Your task to perform on an android device: move an email to a new category in the gmail app Image 0: 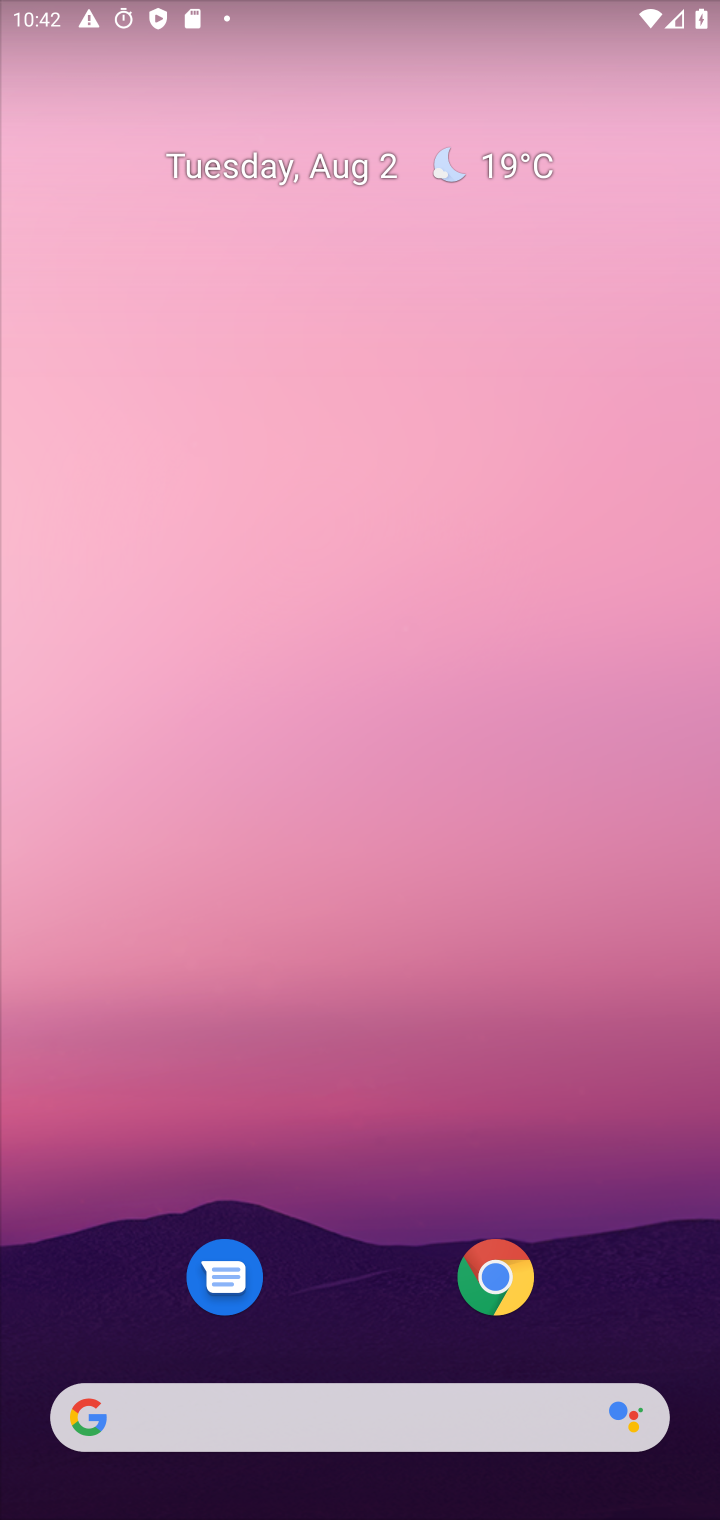
Step 0: press home button
Your task to perform on an android device: move an email to a new category in the gmail app Image 1: 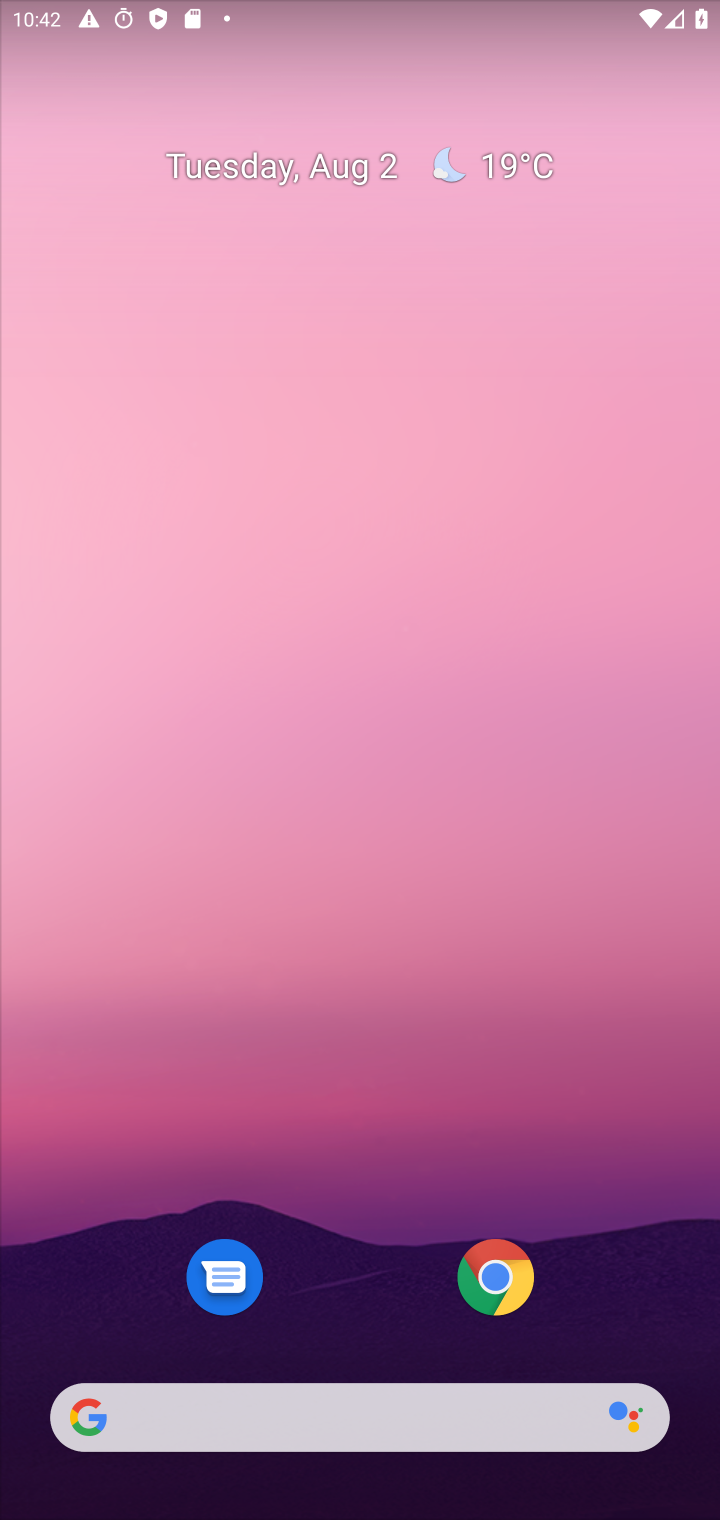
Step 1: drag from (361, 1315) to (252, 127)
Your task to perform on an android device: move an email to a new category in the gmail app Image 2: 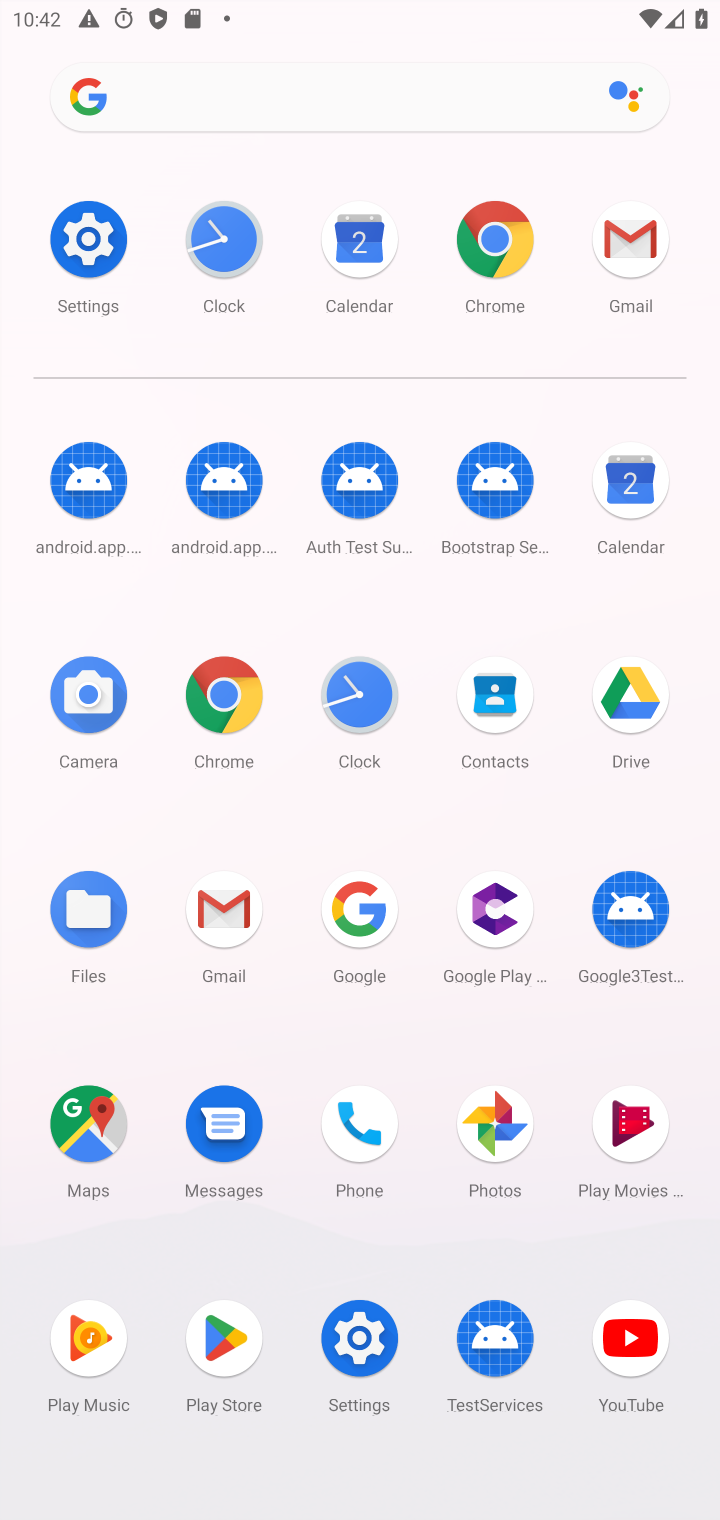
Step 2: click (649, 247)
Your task to perform on an android device: move an email to a new category in the gmail app Image 3: 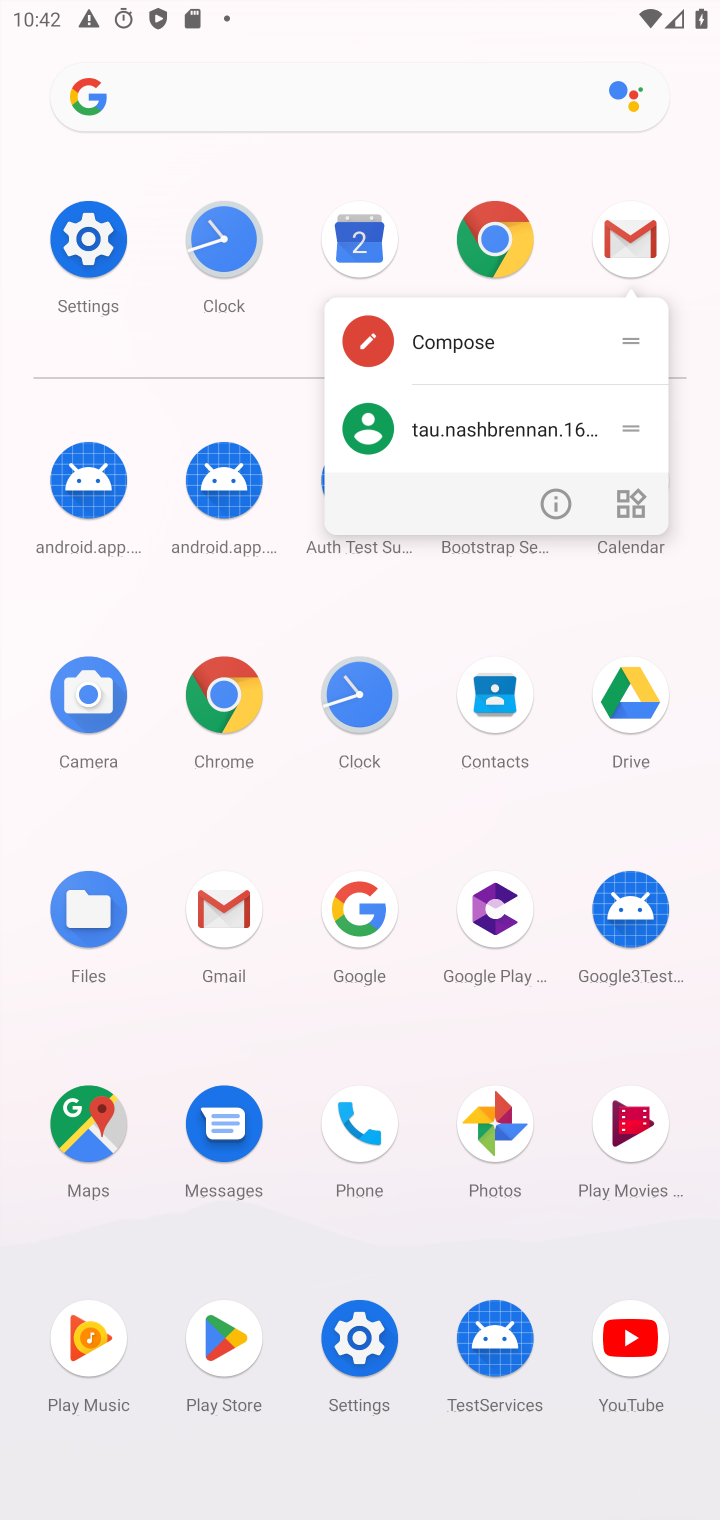
Step 3: click (626, 222)
Your task to perform on an android device: move an email to a new category in the gmail app Image 4: 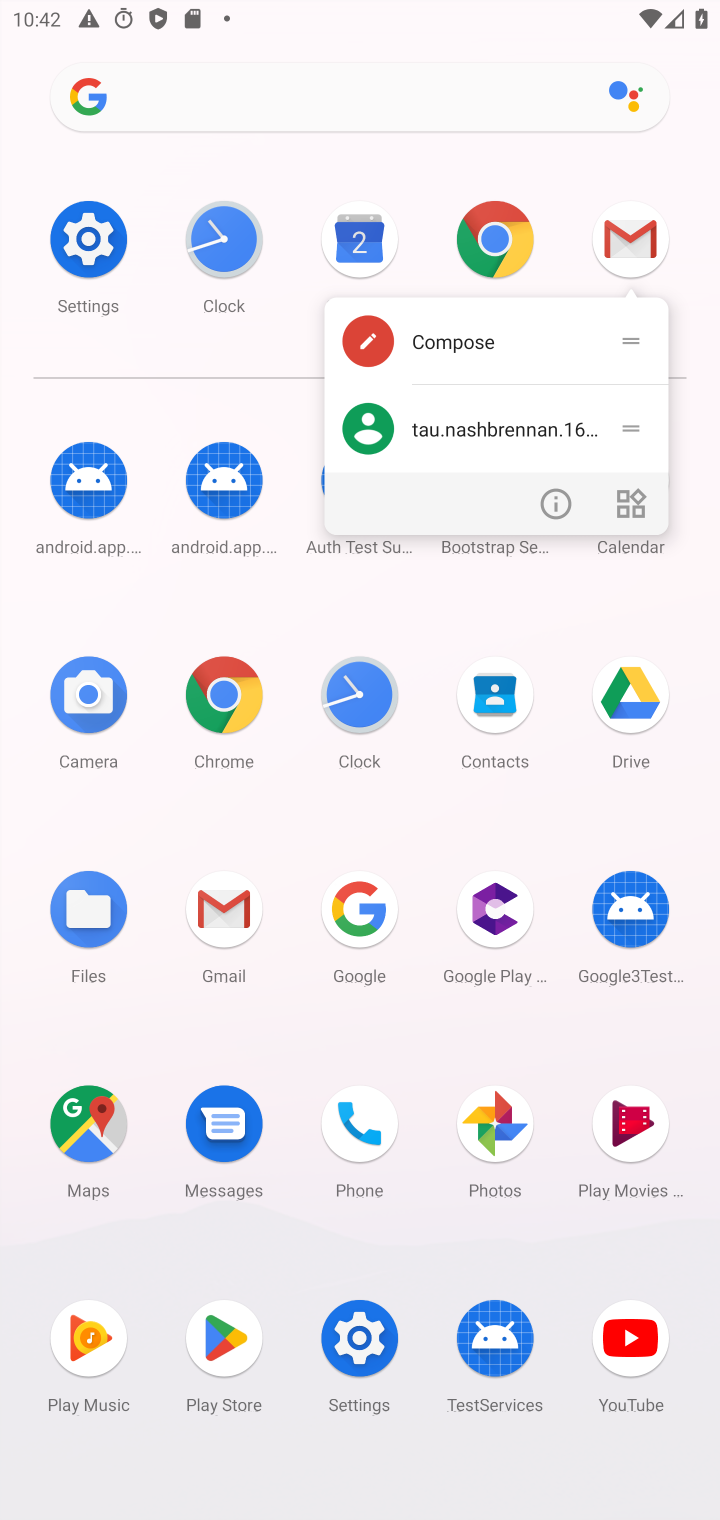
Step 4: click (626, 231)
Your task to perform on an android device: move an email to a new category in the gmail app Image 5: 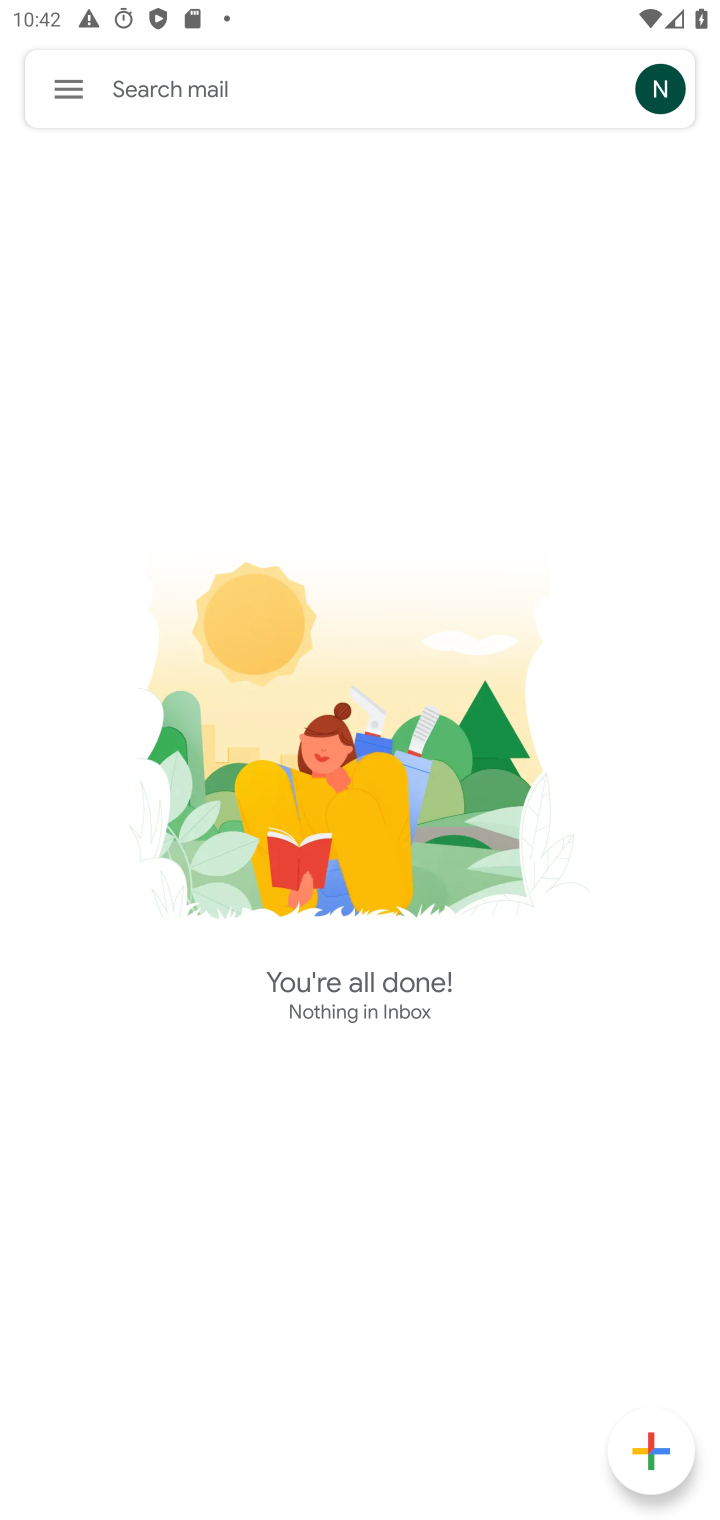
Step 5: click (67, 98)
Your task to perform on an android device: move an email to a new category in the gmail app Image 6: 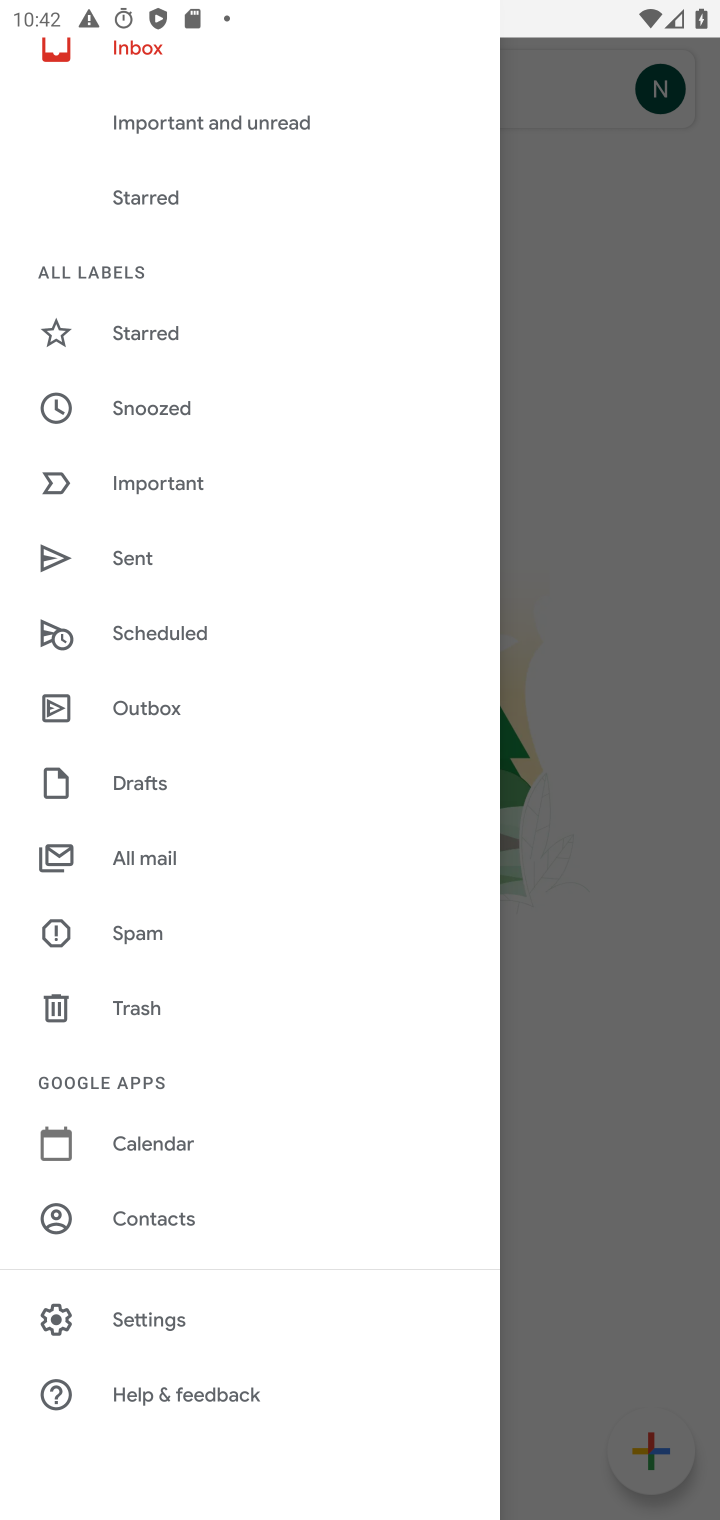
Step 6: drag from (240, 240) to (223, 785)
Your task to perform on an android device: move an email to a new category in the gmail app Image 7: 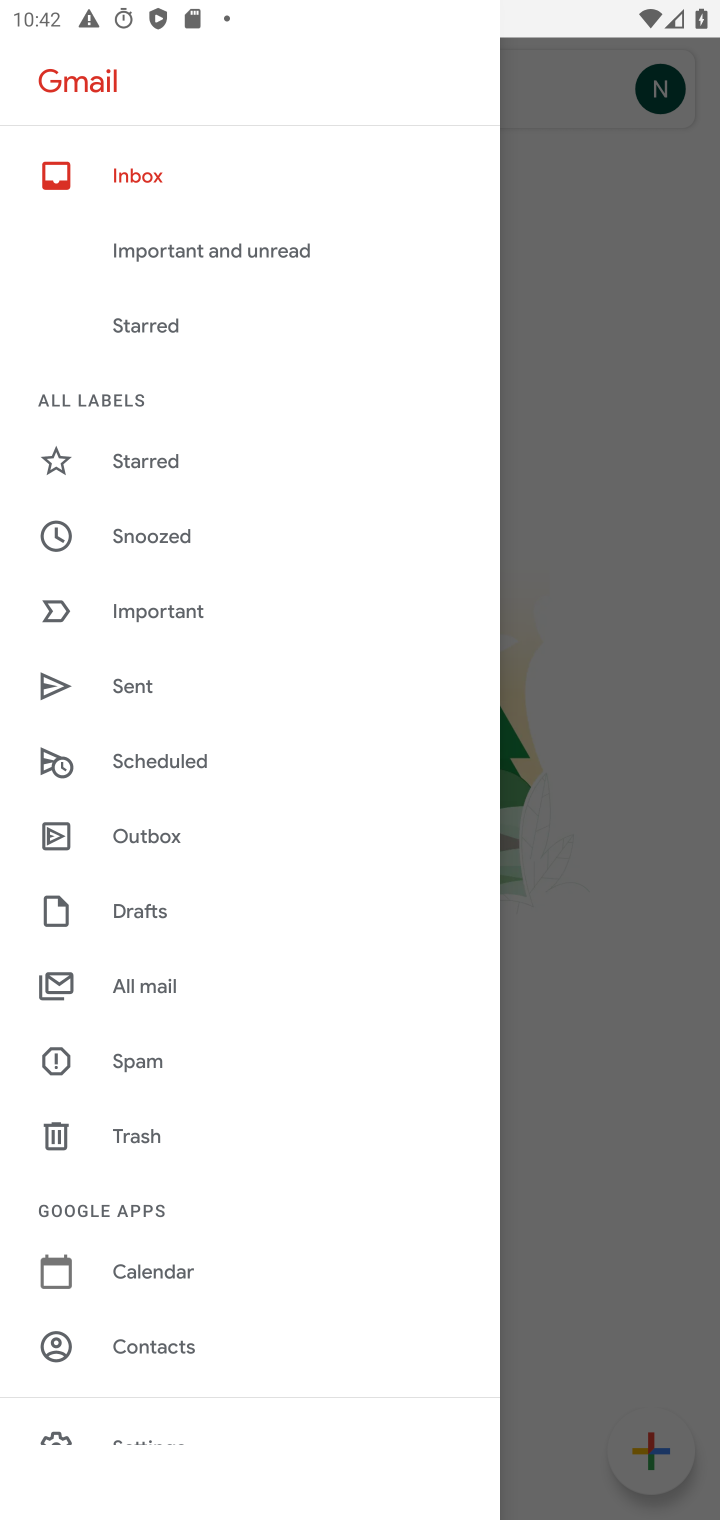
Step 7: click (135, 971)
Your task to perform on an android device: move an email to a new category in the gmail app Image 8: 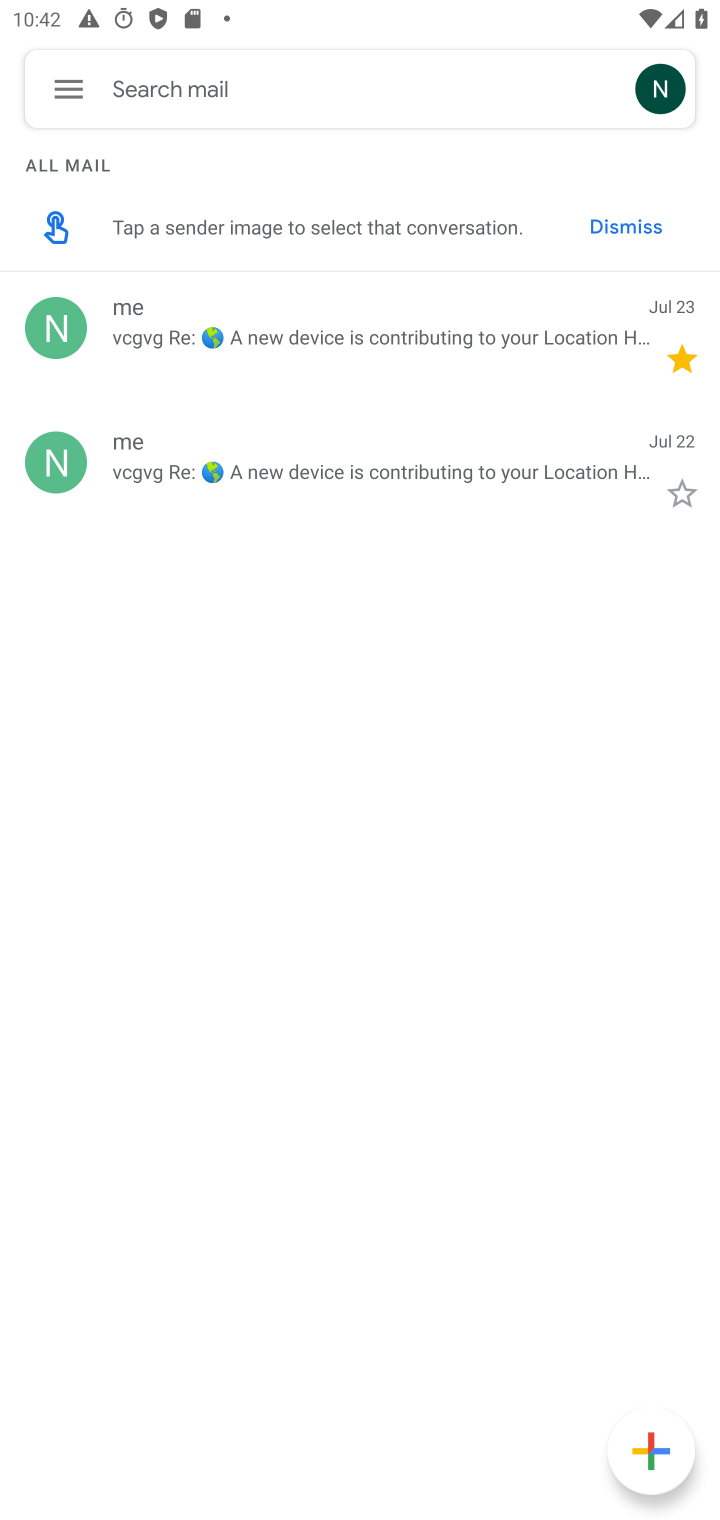
Step 8: click (278, 333)
Your task to perform on an android device: move an email to a new category in the gmail app Image 9: 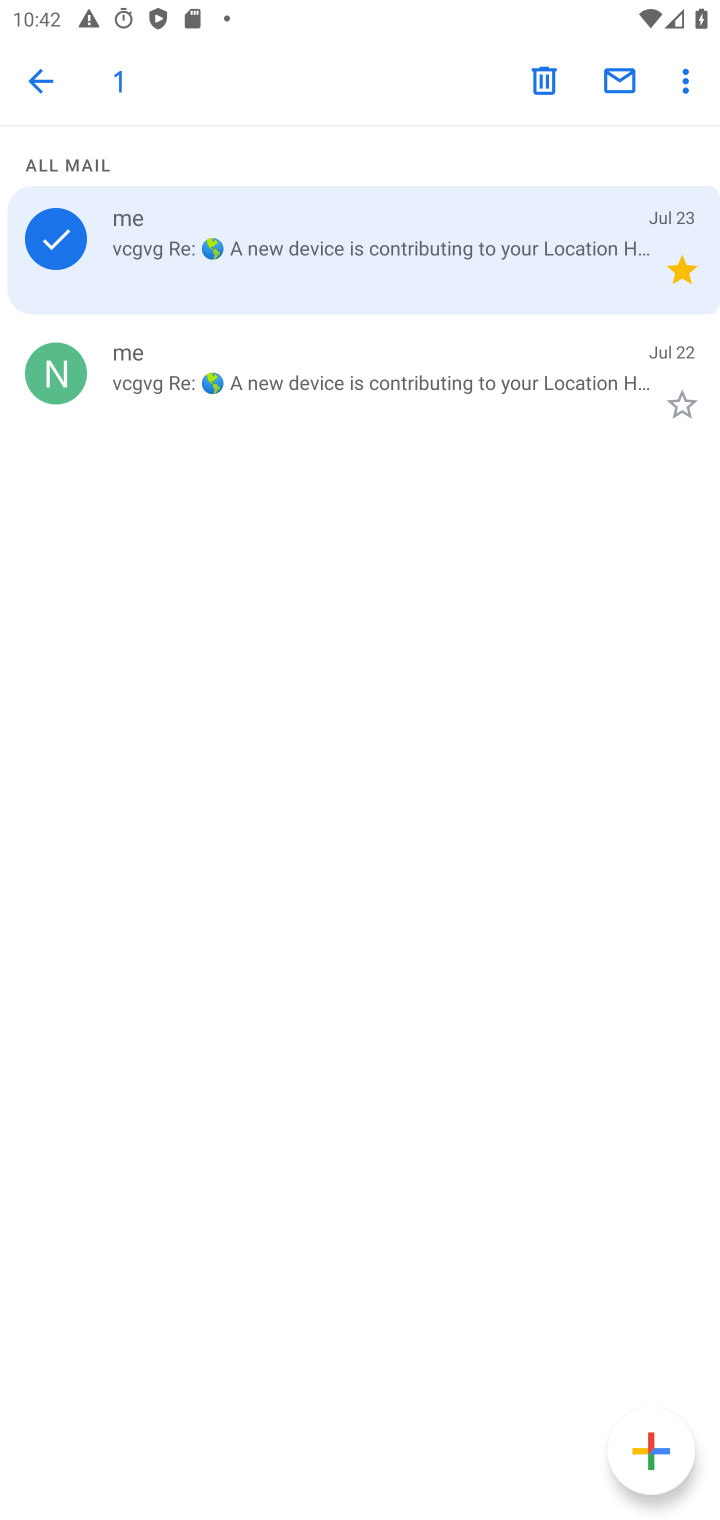
Step 9: click (687, 71)
Your task to perform on an android device: move an email to a new category in the gmail app Image 10: 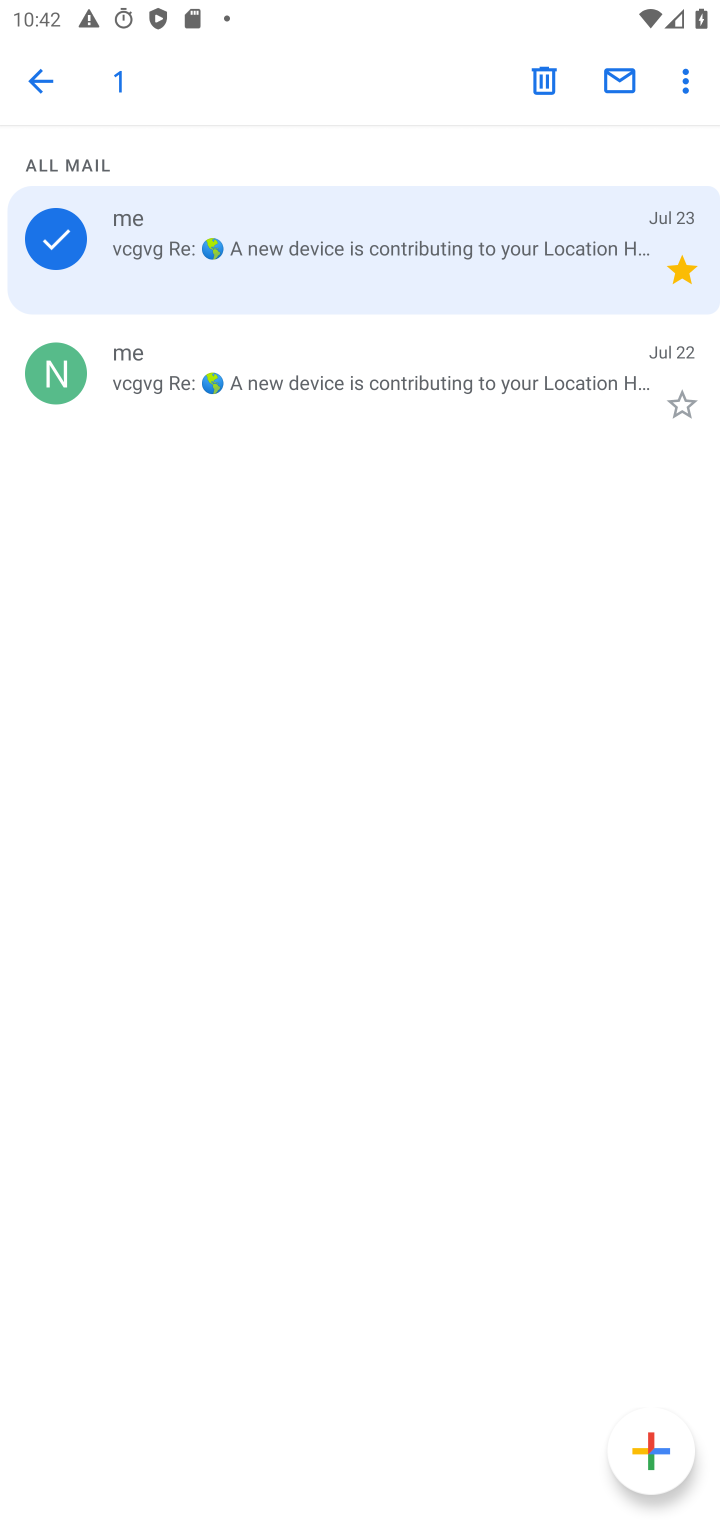
Step 10: click (688, 72)
Your task to perform on an android device: move an email to a new category in the gmail app Image 11: 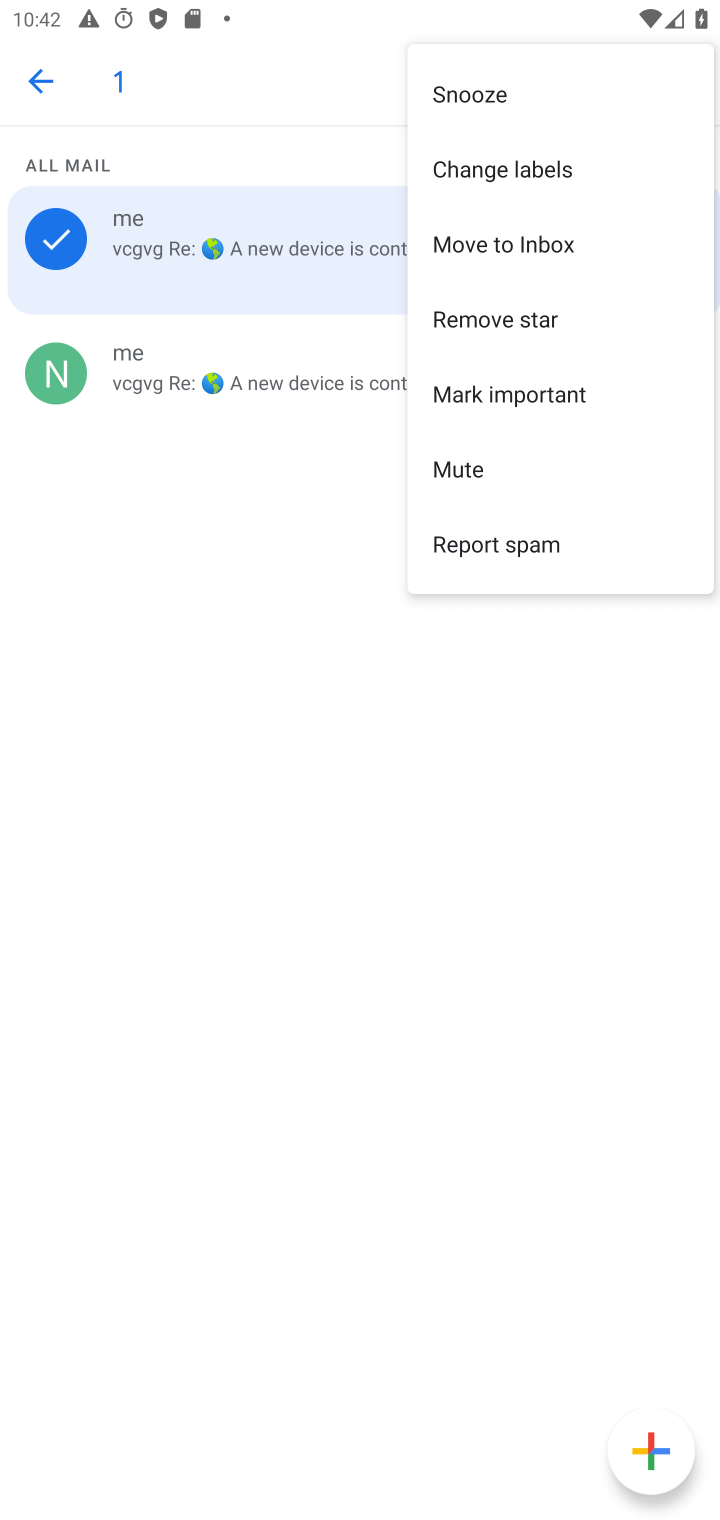
Step 11: click (550, 243)
Your task to perform on an android device: move an email to a new category in the gmail app Image 12: 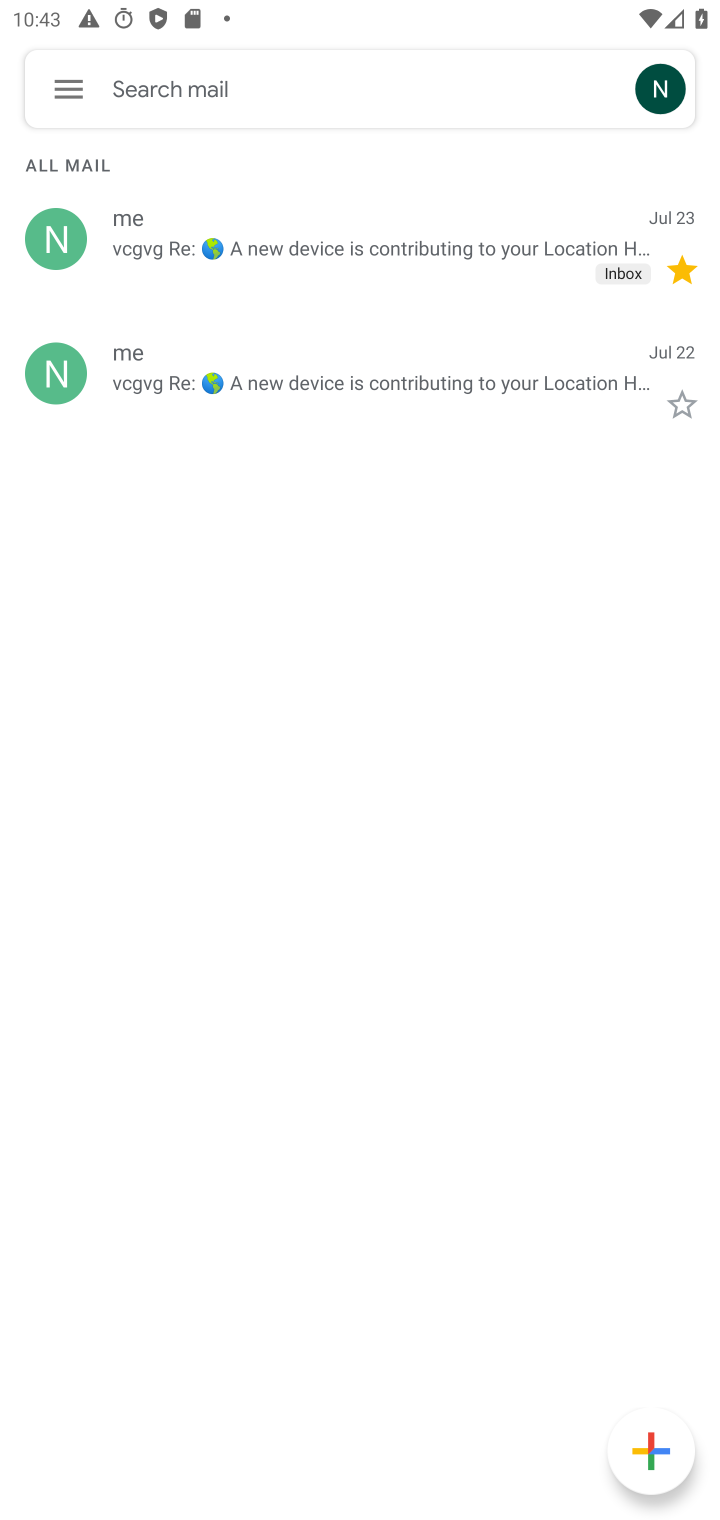
Step 12: task complete